Your task to perform on an android device: Open Youtube and go to the subscriptions tab Image 0: 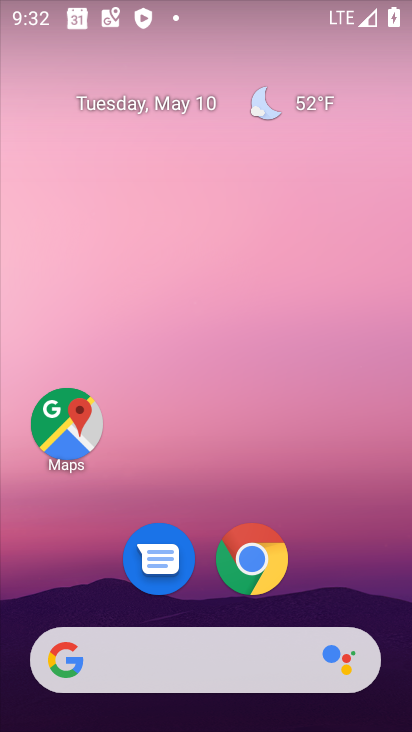
Step 0: drag from (284, 441) to (220, 0)
Your task to perform on an android device: Open Youtube and go to the subscriptions tab Image 1: 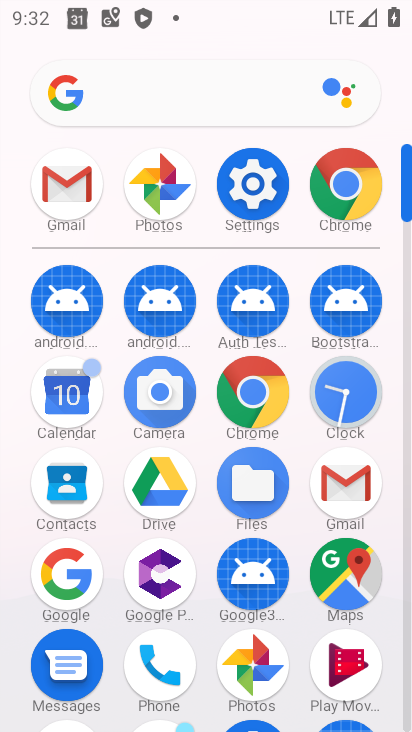
Step 1: drag from (19, 555) to (10, 279)
Your task to perform on an android device: Open Youtube and go to the subscriptions tab Image 2: 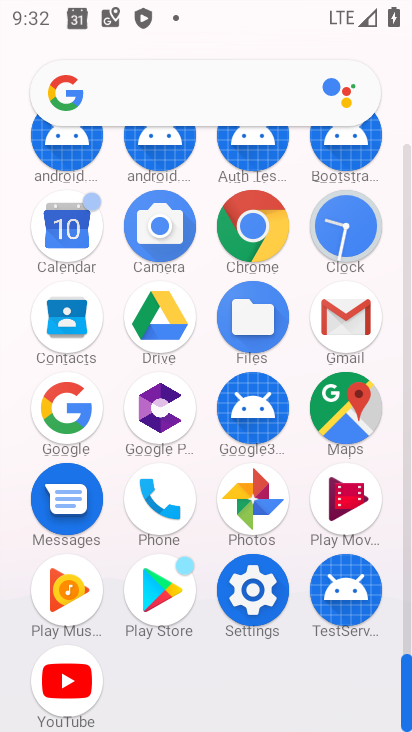
Step 2: click (69, 681)
Your task to perform on an android device: Open Youtube and go to the subscriptions tab Image 3: 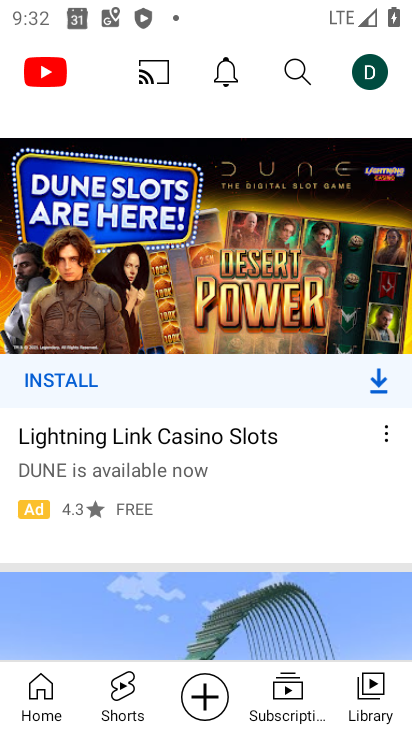
Step 3: click (282, 707)
Your task to perform on an android device: Open Youtube and go to the subscriptions tab Image 4: 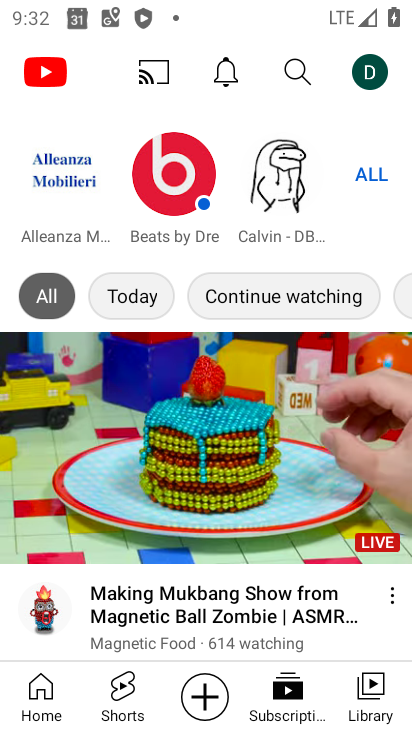
Step 4: task complete